Your task to perform on an android device: Search for Italian restaurants on Maps Image 0: 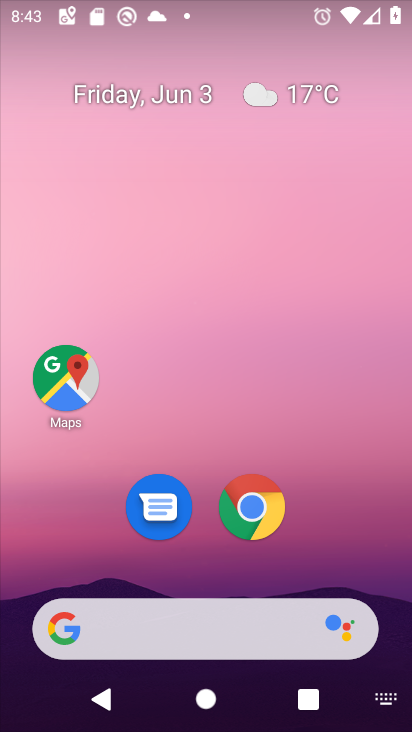
Step 0: press home button
Your task to perform on an android device: Search for Italian restaurants on Maps Image 1: 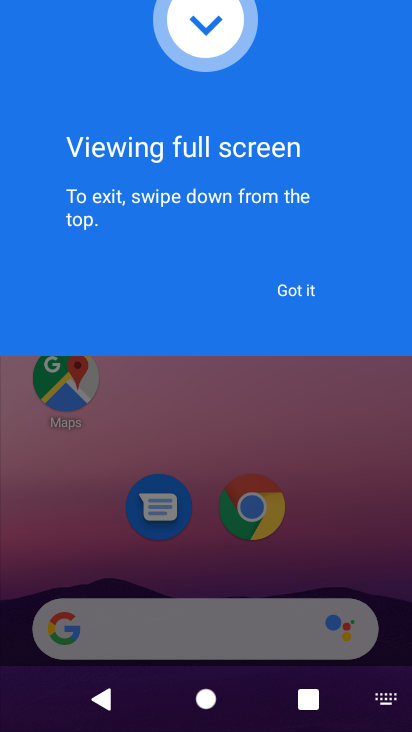
Step 1: press home button
Your task to perform on an android device: Search for Italian restaurants on Maps Image 2: 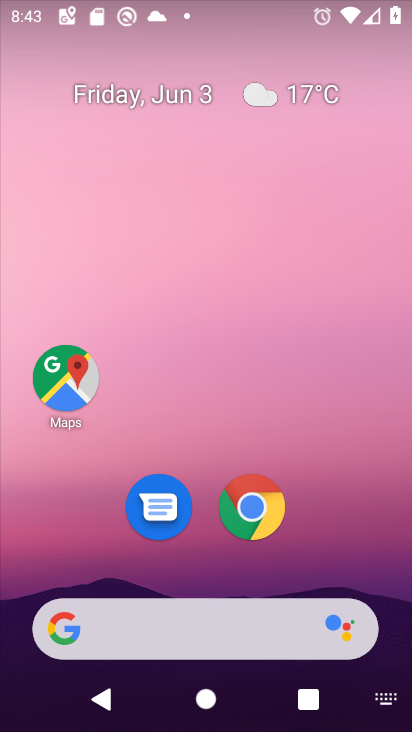
Step 2: drag from (363, 567) to (258, 114)
Your task to perform on an android device: Search for Italian restaurants on Maps Image 3: 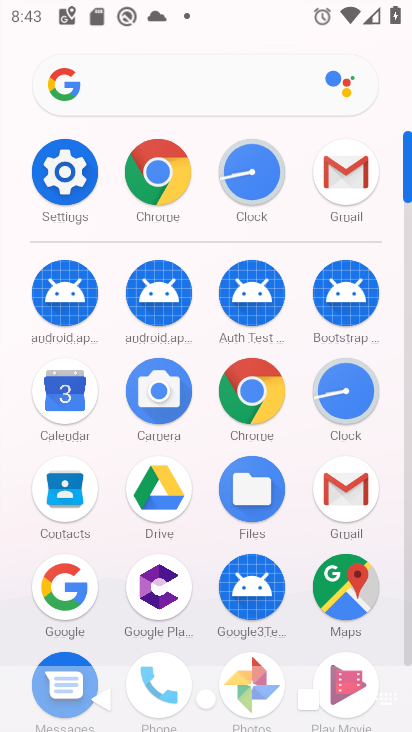
Step 3: click (335, 574)
Your task to perform on an android device: Search for Italian restaurants on Maps Image 4: 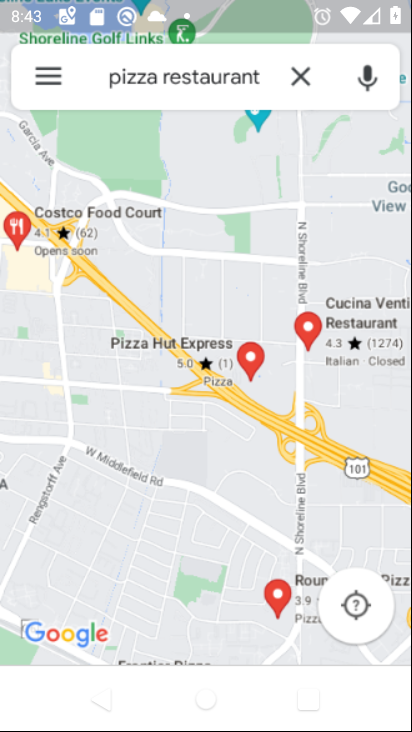
Step 4: click (305, 73)
Your task to perform on an android device: Search for Italian restaurants on Maps Image 5: 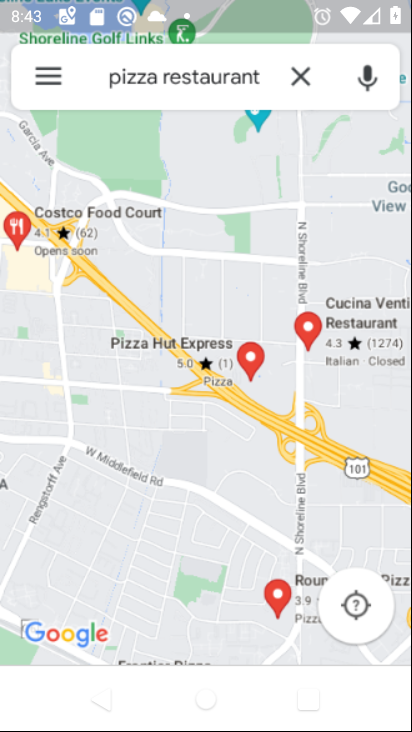
Step 5: click (172, 68)
Your task to perform on an android device: Search for Italian restaurants on Maps Image 6: 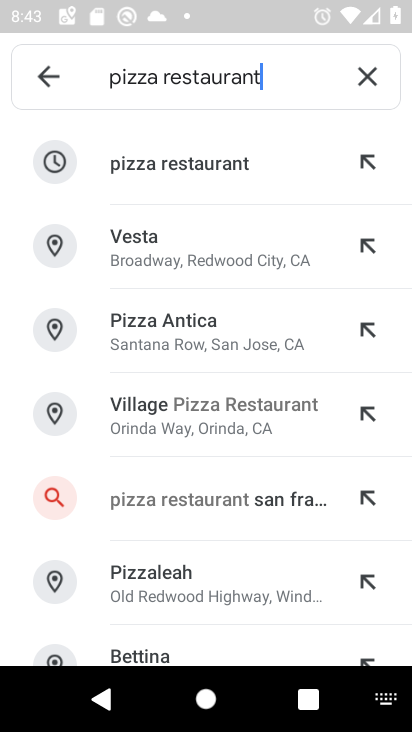
Step 6: click (363, 70)
Your task to perform on an android device: Search for Italian restaurants on Maps Image 7: 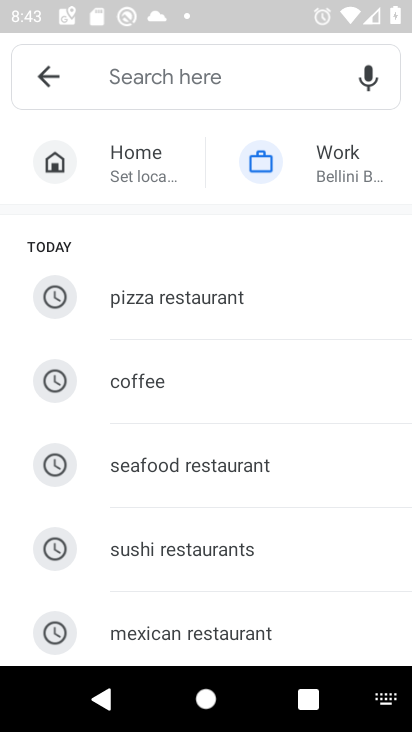
Step 7: drag from (221, 526) to (195, 168)
Your task to perform on an android device: Search for Italian restaurants on Maps Image 8: 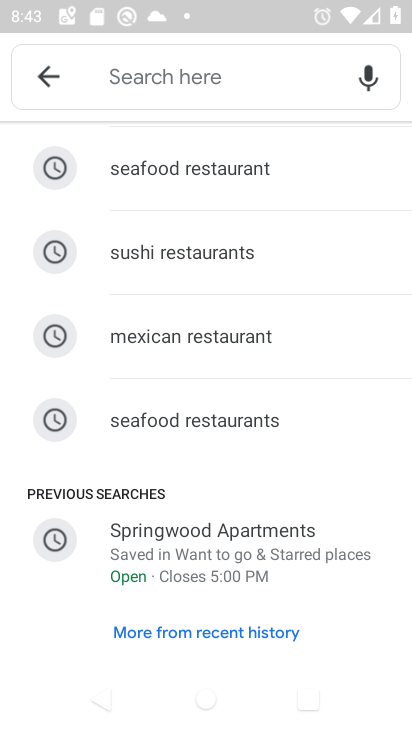
Step 8: type "italian restauratns"
Your task to perform on an android device: Search for Italian restaurants on Maps Image 9: 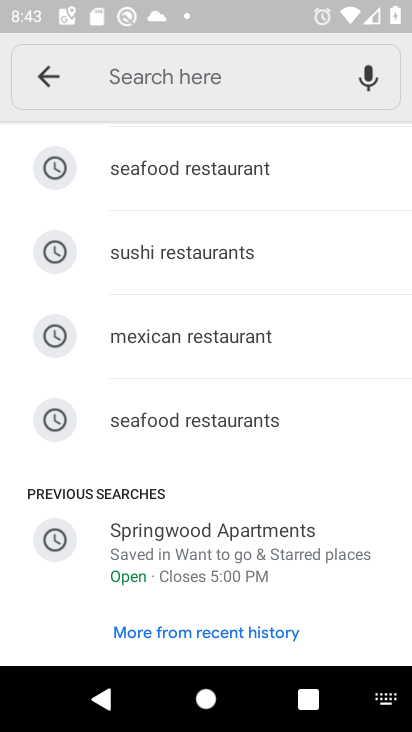
Step 9: click (186, 78)
Your task to perform on an android device: Search for Italian restaurants on Maps Image 10: 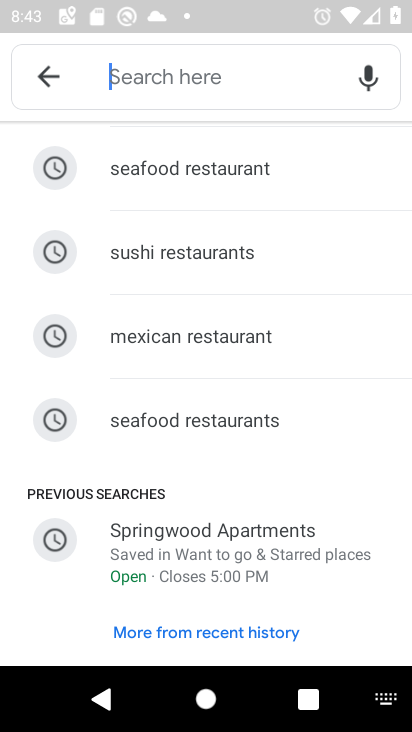
Step 10: type "italian restaurants'"
Your task to perform on an android device: Search for Italian restaurants on Maps Image 11: 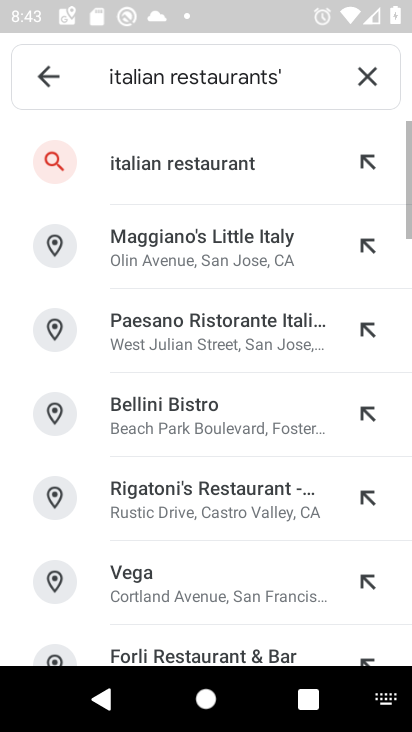
Step 11: click (210, 165)
Your task to perform on an android device: Search for Italian restaurants on Maps Image 12: 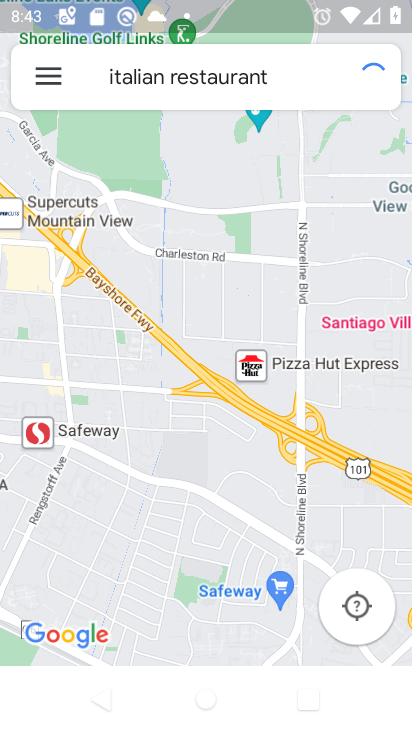
Step 12: task complete